Your task to perform on an android device: turn on wifi Image 0: 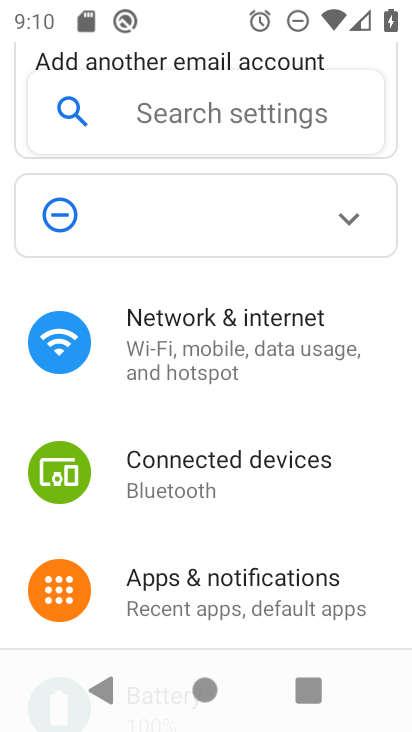
Step 0: press home button
Your task to perform on an android device: turn on wifi Image 1: 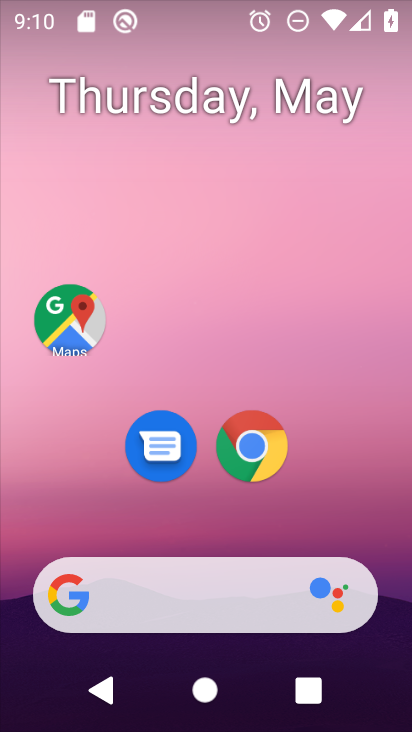
Step 1: drag from (378, 500) to (312, 110)
Your task to perform on an android device: turn on wifi Image 2: 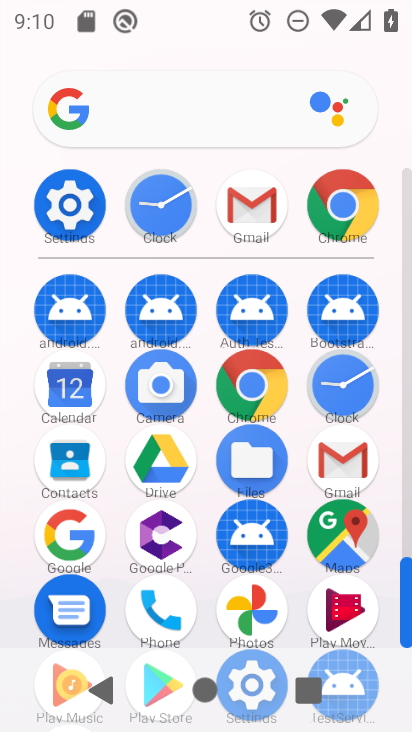
Step 2: click (65, 209)
Your task to perform on an android device: turn on wifi Image 3: 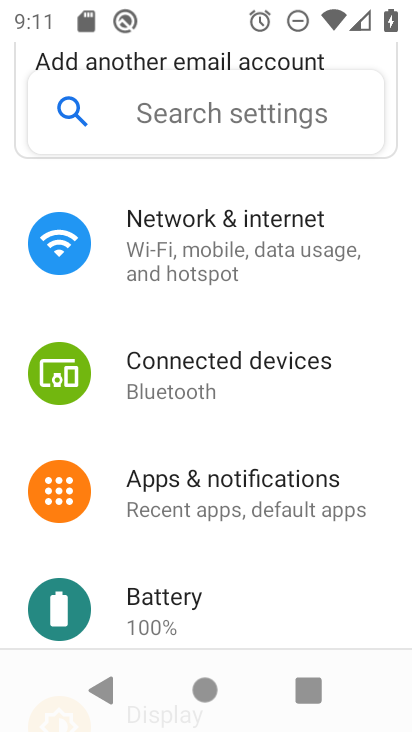
Step 3: click (295, 227)
Your task to perform on an android device: turn on wifi Image 4: 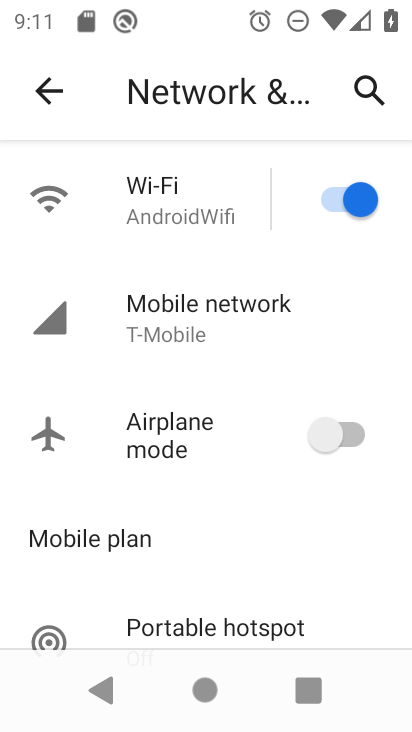
Step 4: task complete